Your task to perform on an android device: toggle notifications settings in the gmail app Image 0: 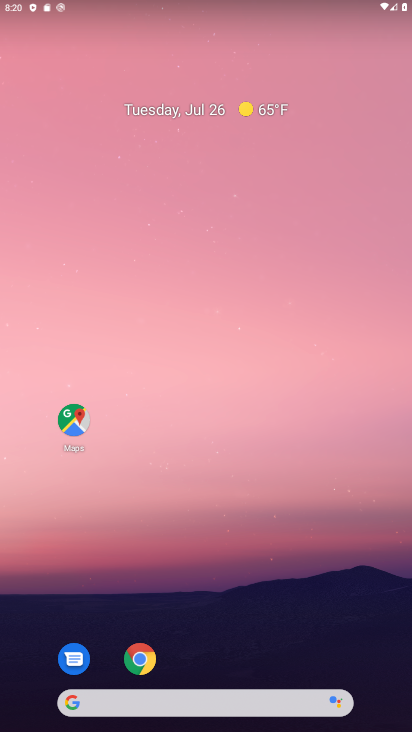
Step 0: drag from (197, 623) to (230, 7)
Your task to perform on an android device: toggle notifications settings in the gmail app Image 1: 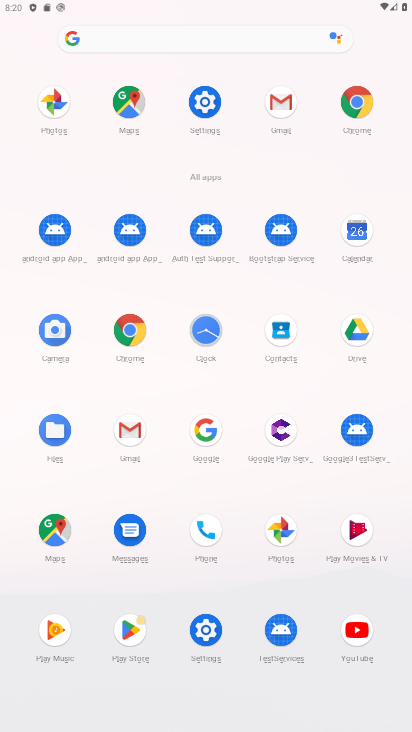
Step 1: click (278, 123)
Your task to perform on an android device: toggle notifications settings in the gmail app Image 2: 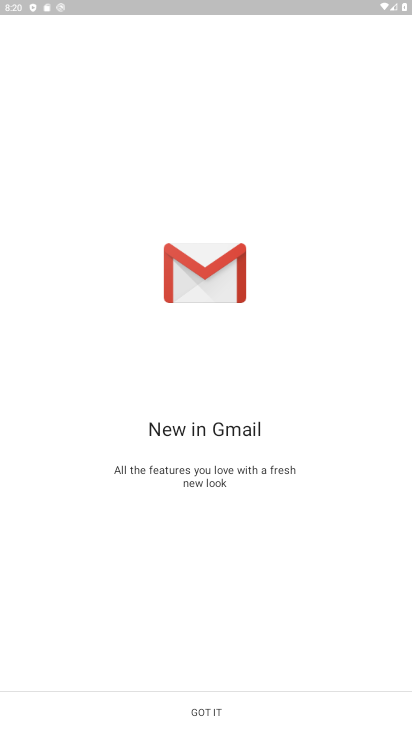
Step 2: click (192, 713)
Your task to perform on an android device: toggle notifications settings in the gmail app Image 3: 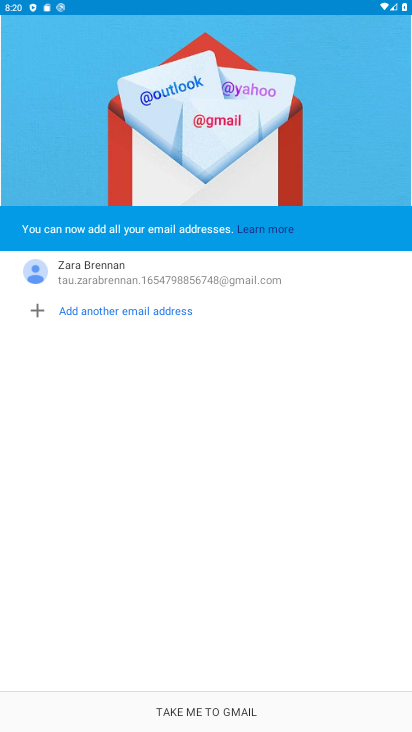
Step 3: click (192, 713)
Your task to perform on an android device: toggle notifications settings in the gmail app Image 4: 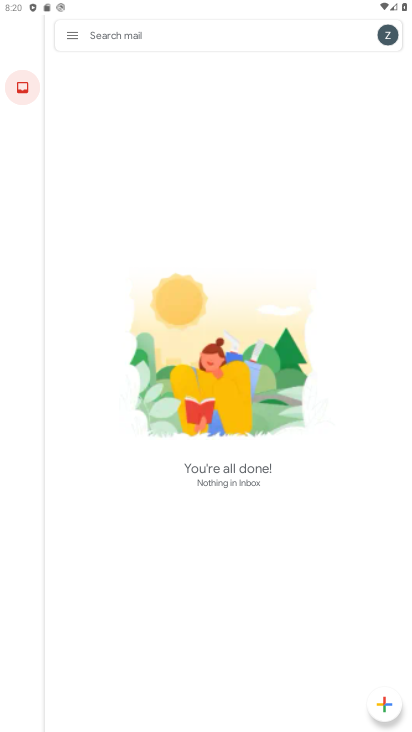
Step 4: click (66, 36)
Your task to perform on an android device: toggle notifications settings in the gmail app Image 5: 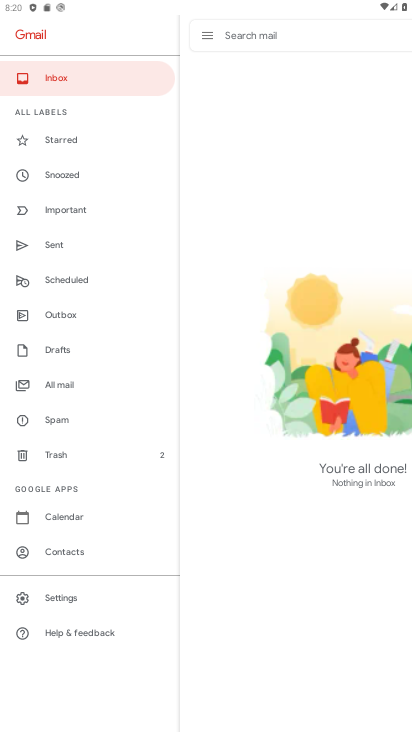
Step 5: click (56, 602)
Your task to perform on an android device: toggle notifications settings in the gmail app Image 6: 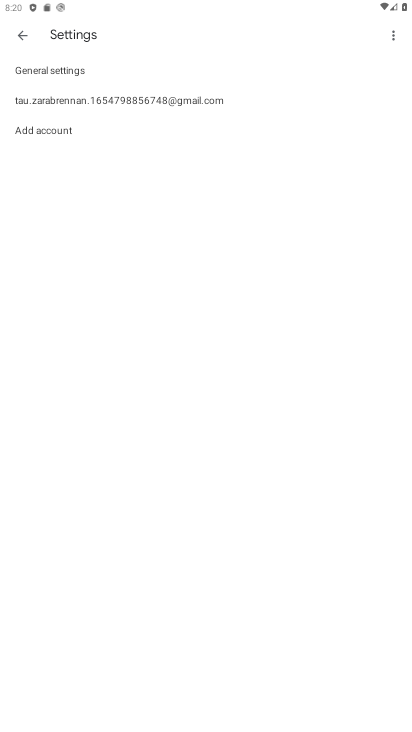
Step 6: click (138, 99)
Your task to perform on an android device: toggle notifications settings in the gmail app Image 7: 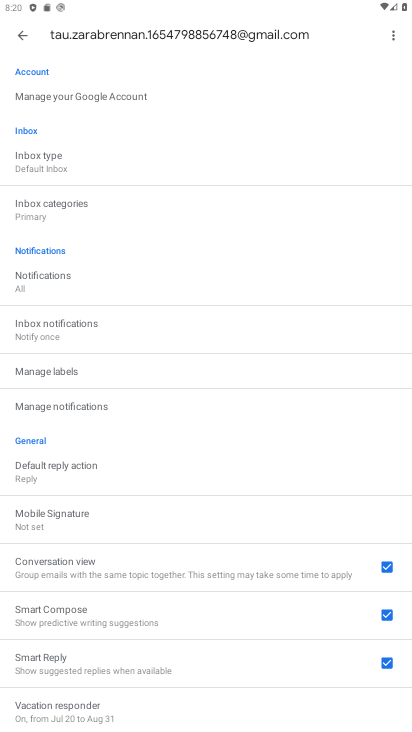
Step 7: click (92, 402)
Your task to perform on an android device: toggle notifications settings in the gmail app Image 8: 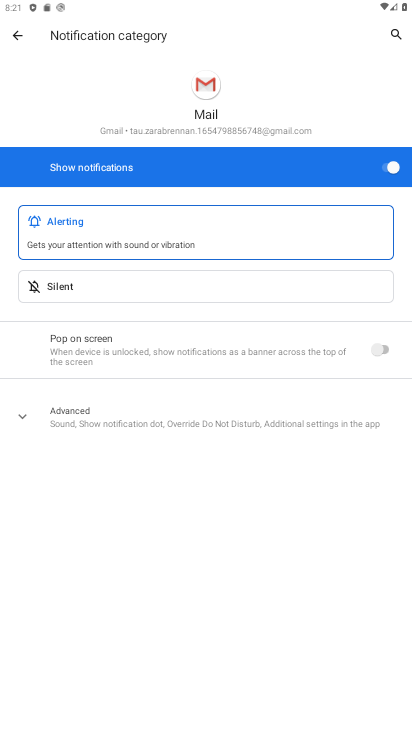
Step 8: click (382, 170)
Your task to perform on an android device: toggle notifications settings in the gmail app Image 9: 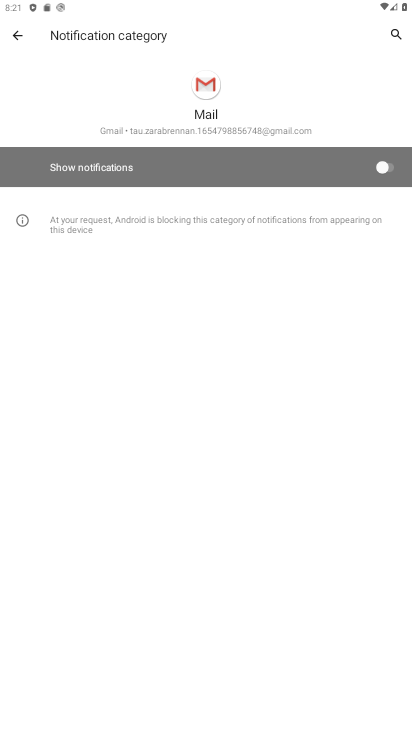
Step 9: task complete